Your task to perform on an android device: toggle sleep mode Image 0: 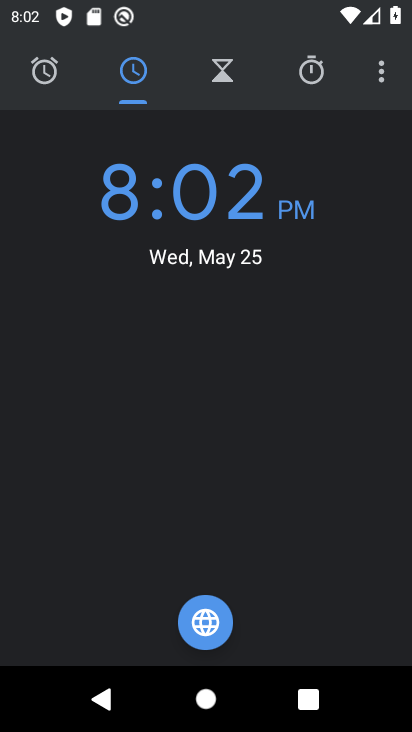
Step 0: press home button
Your task to perform on an android device: toggle sleep mode Image 1: 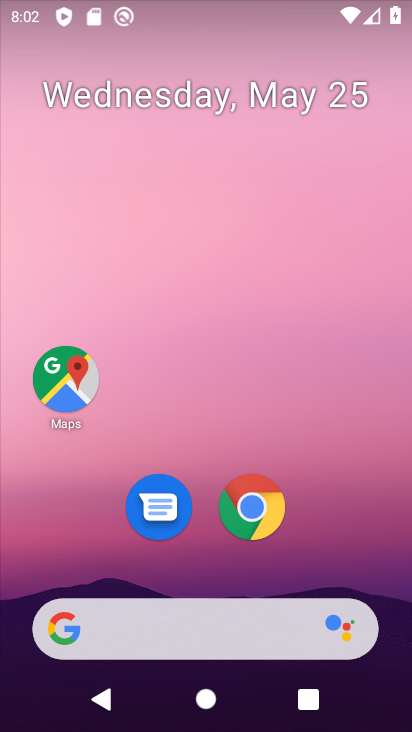
Step 1: drag from (207, 571) to (165, 115)
Your task to perform on an android device: toggle sleep mode Image 2: 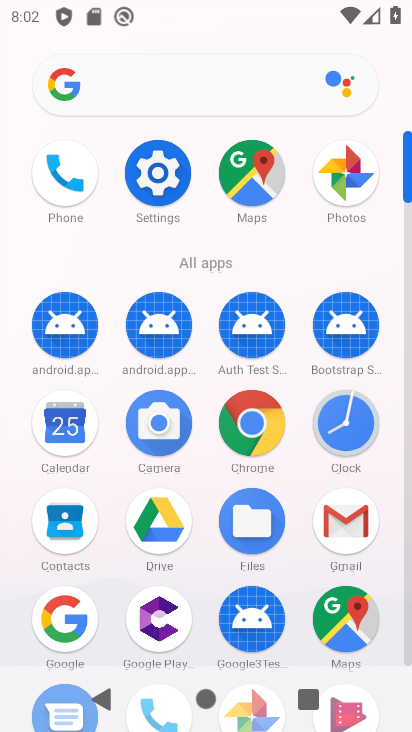
Step 2: click (153, 191)
Your task to perform on an android device: toggle sleep mode Image 3: 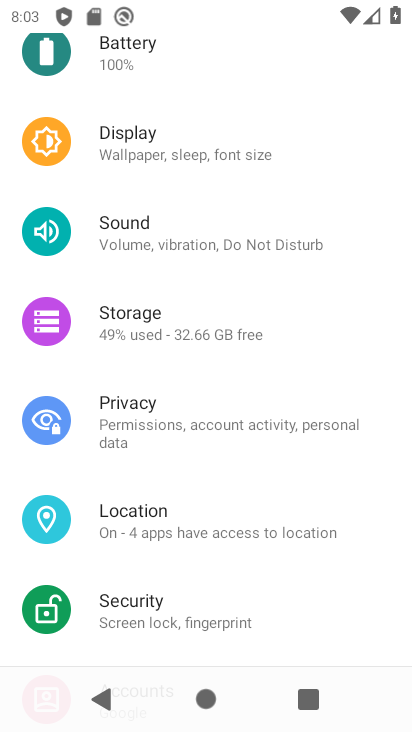
Step 3: click (161, 158)
Your task to perform on an android device: toggle sleep mode Image 4: 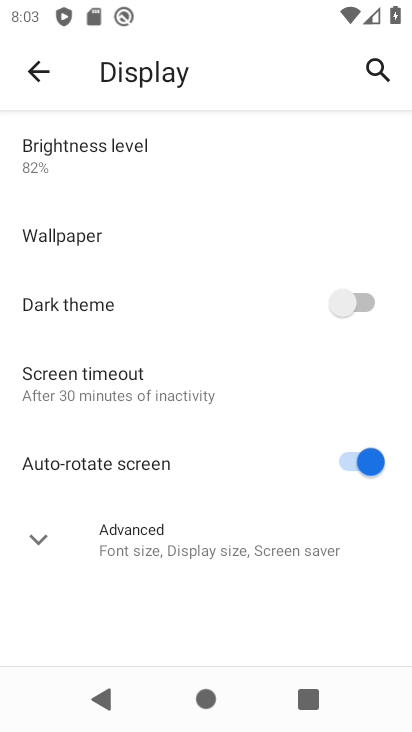
Step 4: task complete